Your task to perform on an android device: When is my next meeting? Image 0: 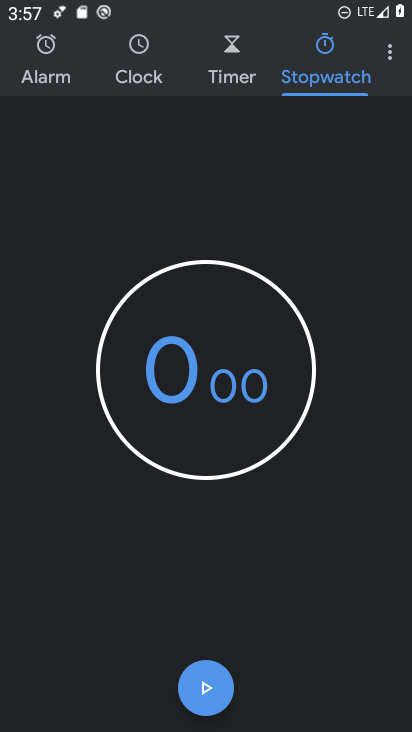
Step 0: press home button
Your task to perform on an android device: When is my next meeting? Image 1: 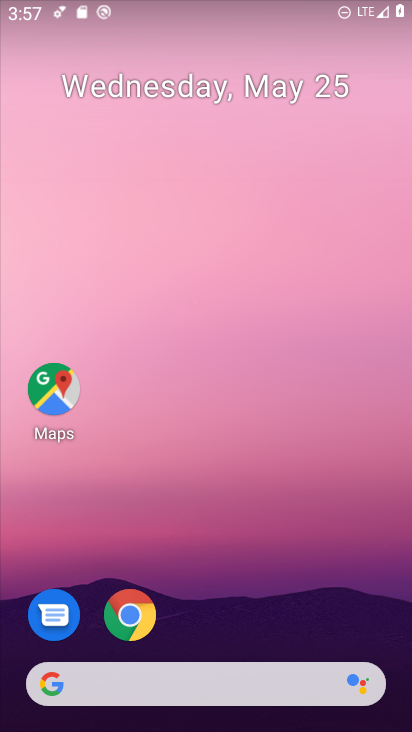
Step 1: drag from (207, 564) to (236, 61)
Your task to perform on an android device: When is my next meeting? Image 2: 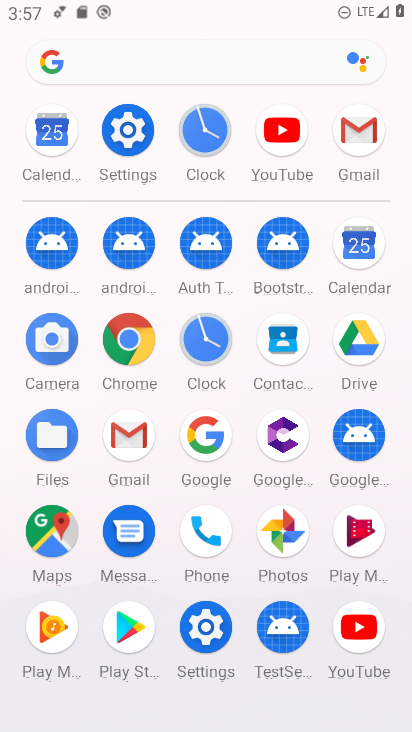
Step 2: click (53, 133)
Your task to perform on an android device: When is my next meeting? Image 3: 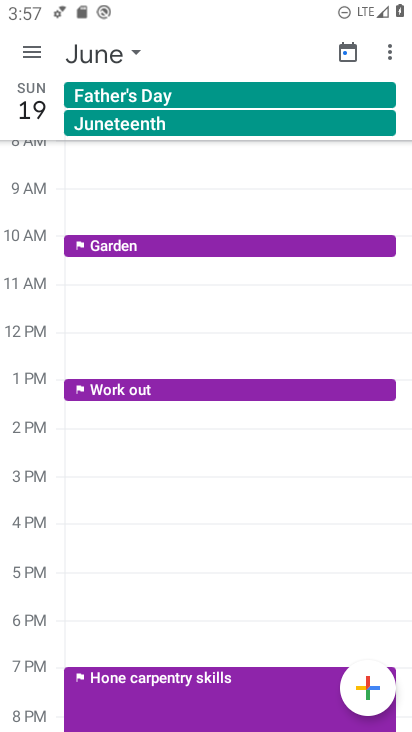
Step 3: click (24, 47)
Your task to perform on an android device: When is my next meeting? Image 4: 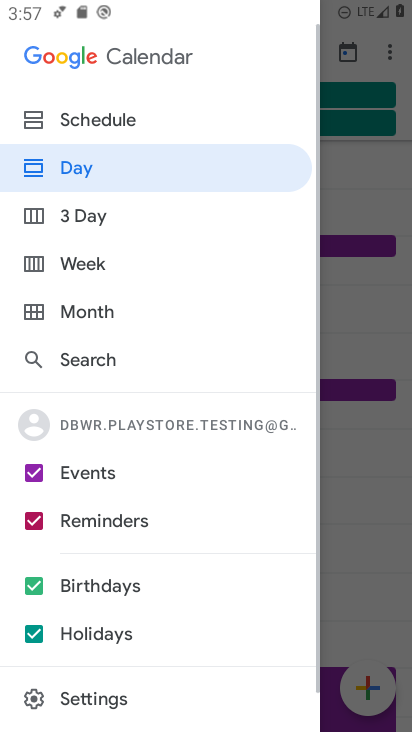
Step 4: click (69, 299)
Your task to perform on an android device: When is my next meeting? Image 5: 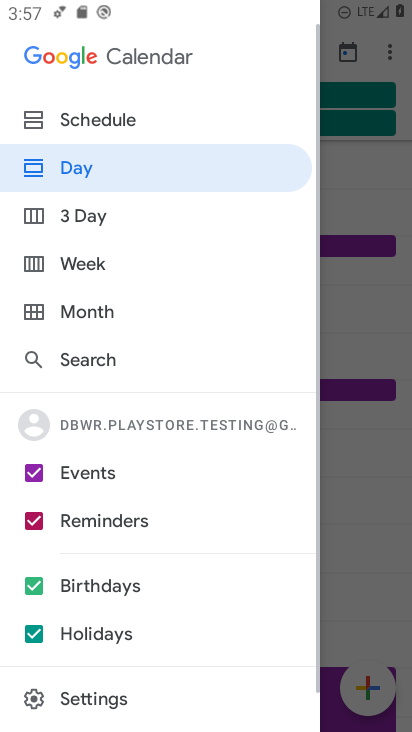
Step 5: click (71, 305)
Your task to perform on an android device: When is my next meeting? Image 6: 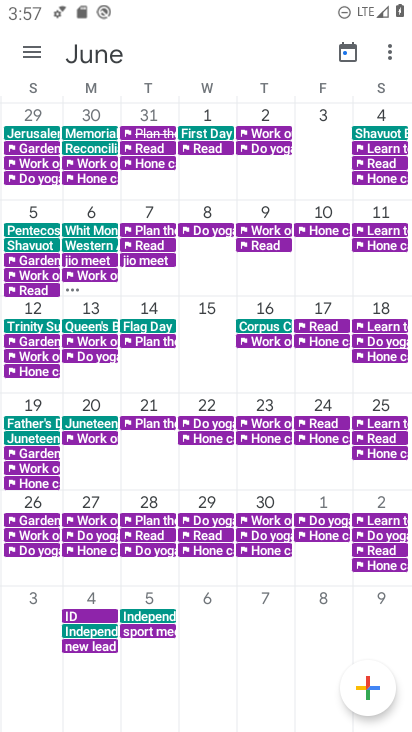
Step 6: drag from (71, 305) to (386, 375)
Your task to perform on an android device: When is my next meeting? Image 7: 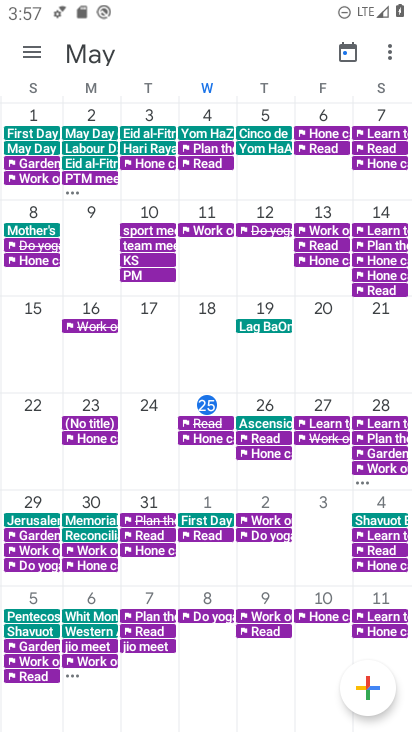
Step 7: click (201, 403)
Your task to perform on an android device: When is my next meeting? Image 8: 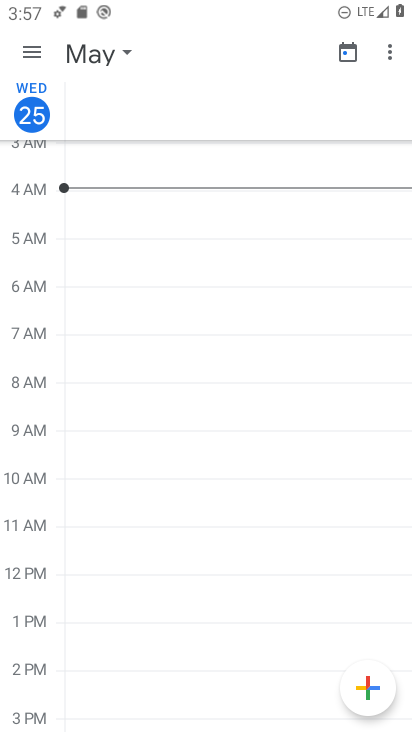
Step 8: click (28, 45)
Your task to perform on an android device: When is my next meeting? Image 9: 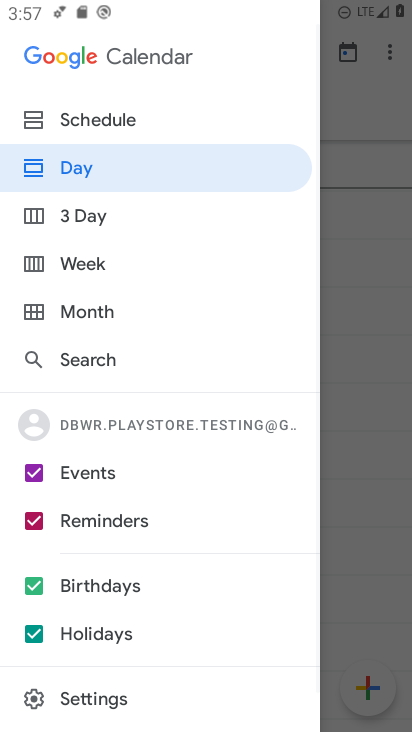
Step 9: click (72, 107)
Your task to perform on an android device: When is my next meeting? Image 10: 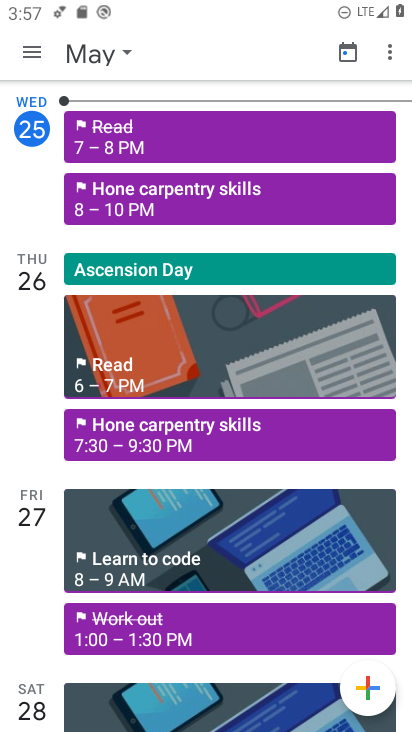
Step 10: task complete